Your task to perform on an android device: turn pop-ups on in chrome Image 0: 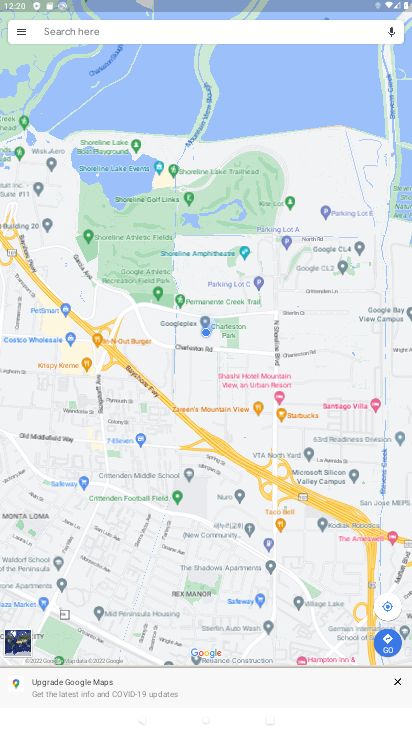
Step 0: task complete